Your task to perform on an android device: allow cookies in the chrome app Image 0: 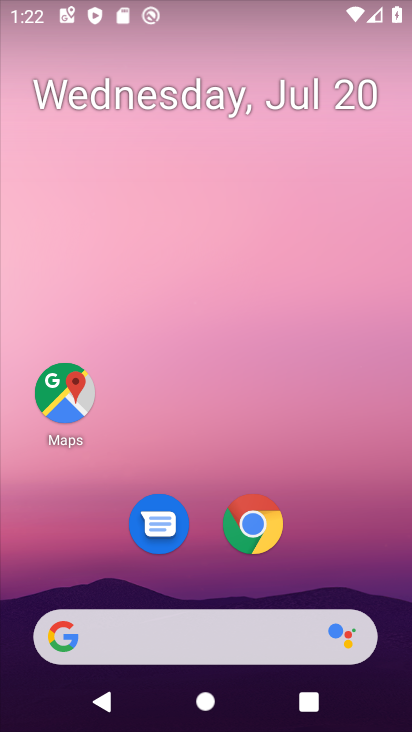
Step 0: click (253, 530)
Your task to perform on an android device: allow cookies in the chrome app Image 1: 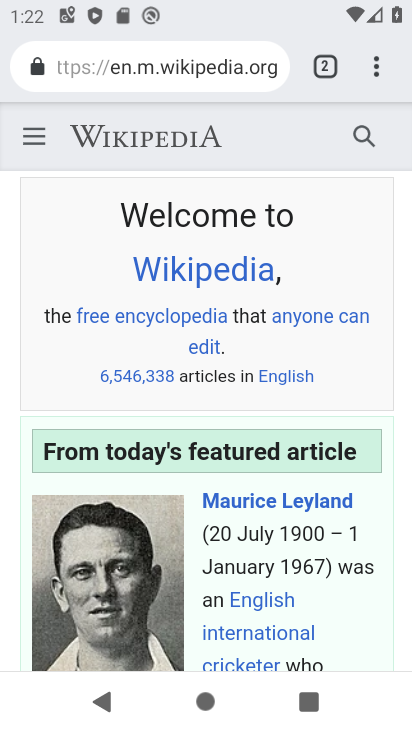
Step 1: click (373, 65)
Your task to perform on an android device: allow cookies in the chrome app Image 2: 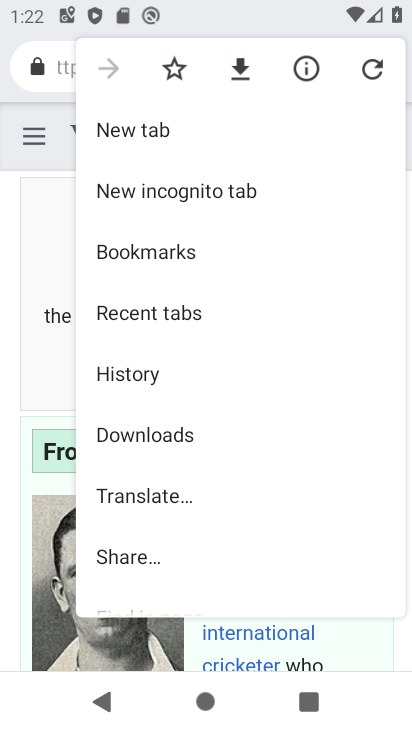
Step 2: drag from (265, 487) to (236, 97)
Your task to perform on an android device: allow cookies in the chrome app Image 3: 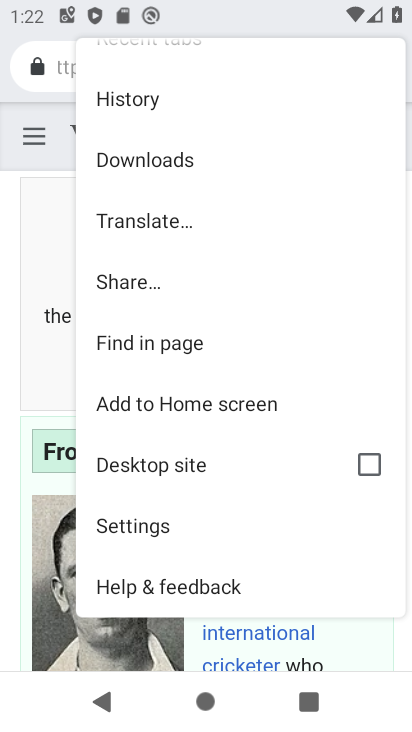
Step 3: click (167, 522)
Your task to perform on an android device: allow cookies in the chrome app Image 4: 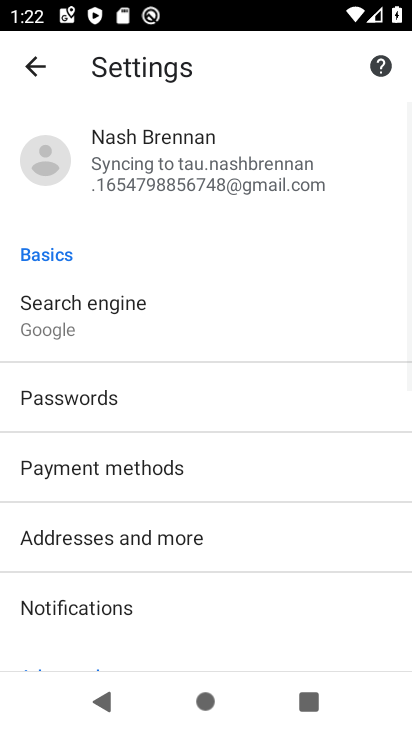
Step 4: drag from (226, 536) to (256, 209)
Your task to perform on an android device: allow cookies in the chrome app Image 5: 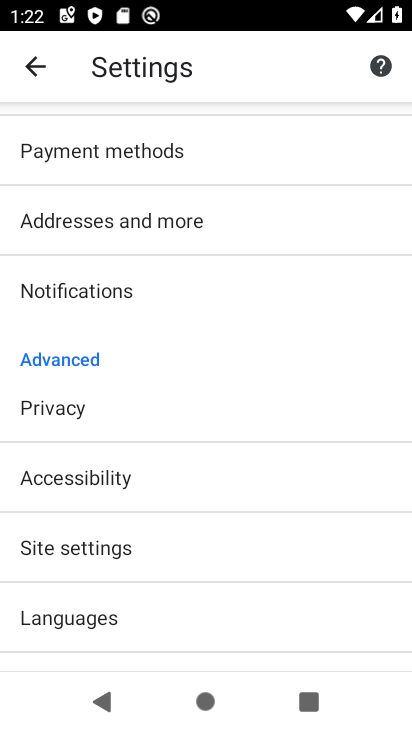
Step 5: drag from (178, 554) to (213, 382)
Your task to perform on an android device: allow cookies in the chrome app Image 6: 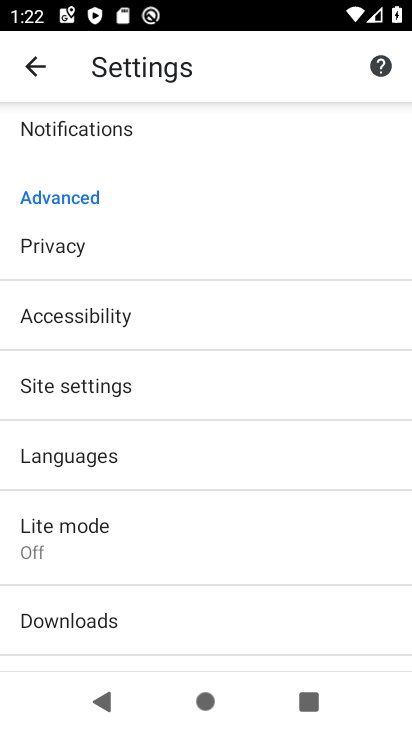
Step 6: click (123, 379)
Your task to perform on an android device: allow cookies in the chrome app Image 7: 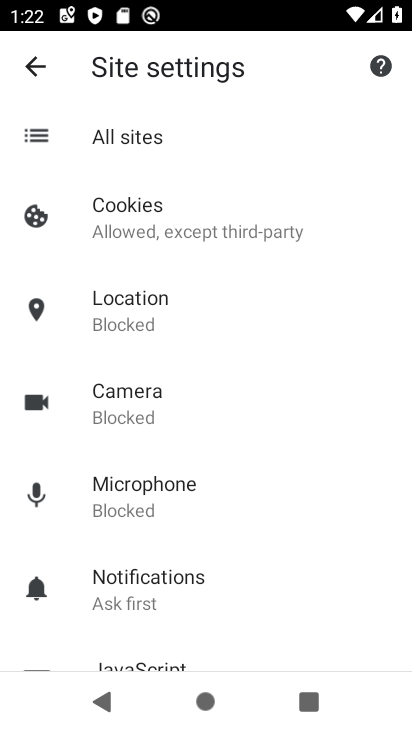
Step 7: click (205, 222)
Your task to perform on an android device: allow cookies in the chrome app Image 8: 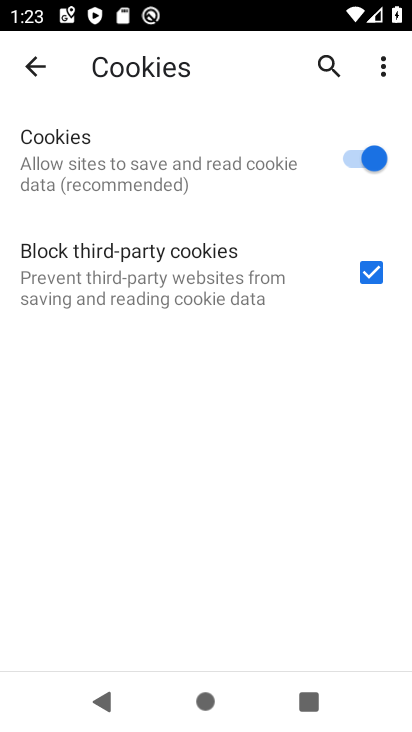
Step 8: task complete